Your task to perform on an android device: What is the recent news? Image 0: 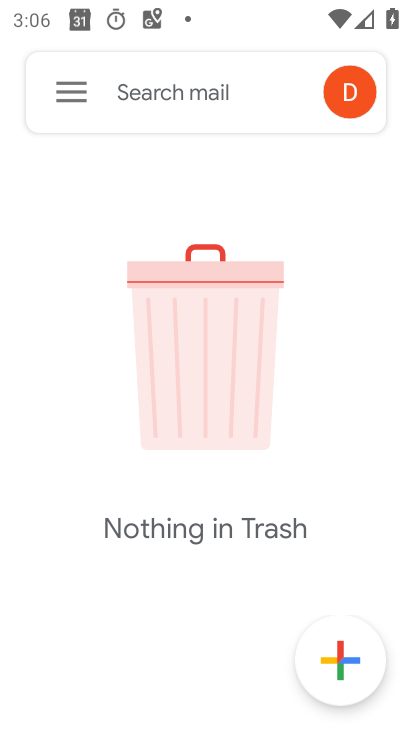
Step 0: press home button
Your task to perform on an android device: What is the recent news? Image 1: 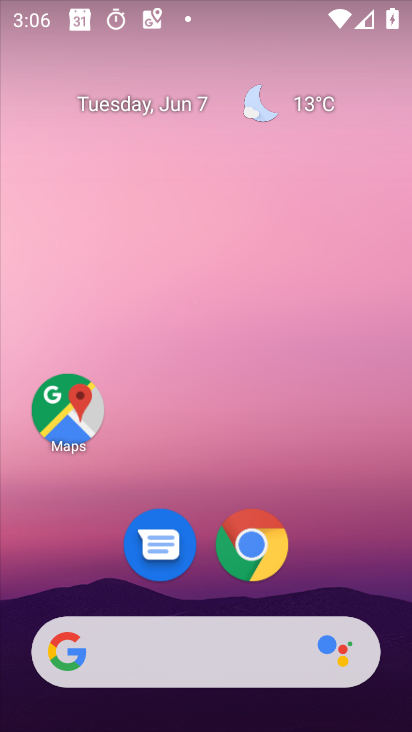
Step 1: drag from (346, 459) to (236, 24)
Your task to perform on an android device: What is the recent news? Image 2: 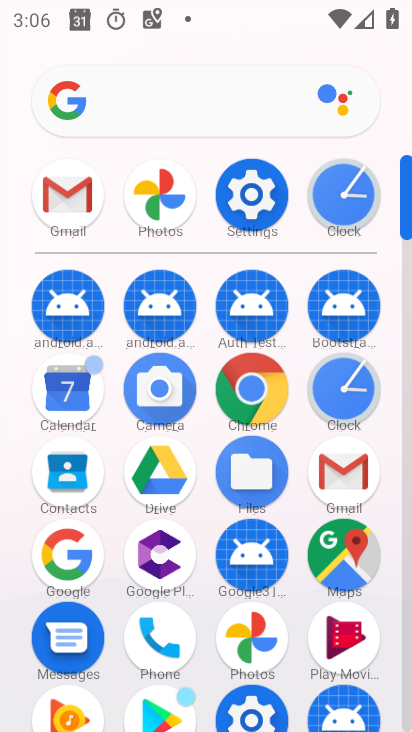
Step 2: click (75, 571)
Your task to perform on an android device: What is the recent news? Image 3: 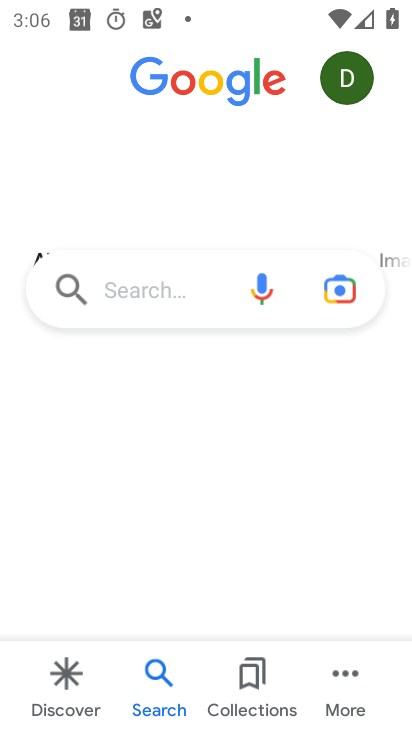
Step 3: click (137, 276)
Your task to perform on an android device: What is the recent news? Image 4: 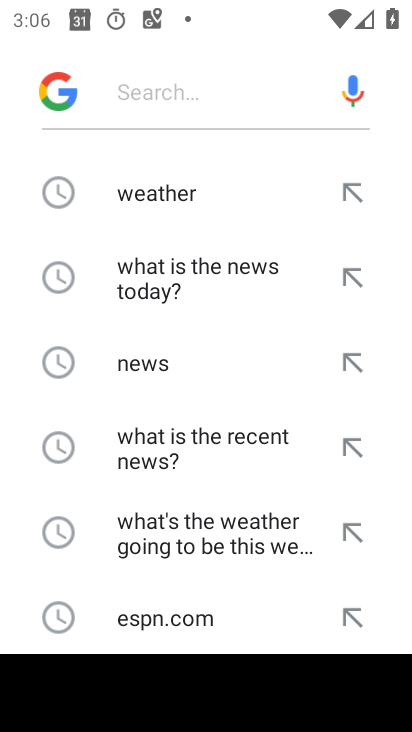
Step 4: click (200, 283)
Your task to perform on an android device: What is the recent news? Image 5: 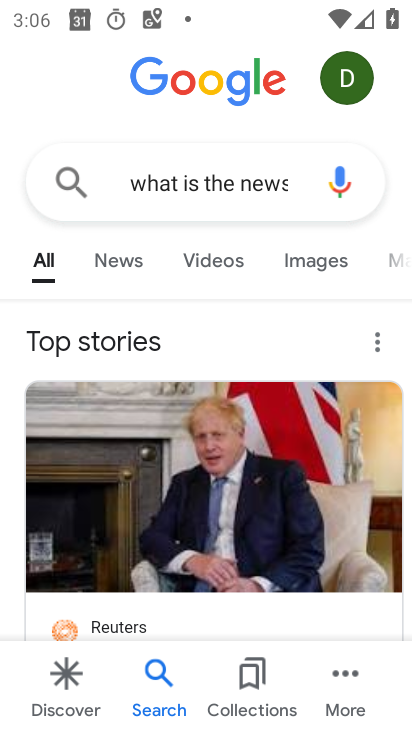
Step 5: click (252, 189)
Your task to perform on an android device: What is the recent news? Image 6: 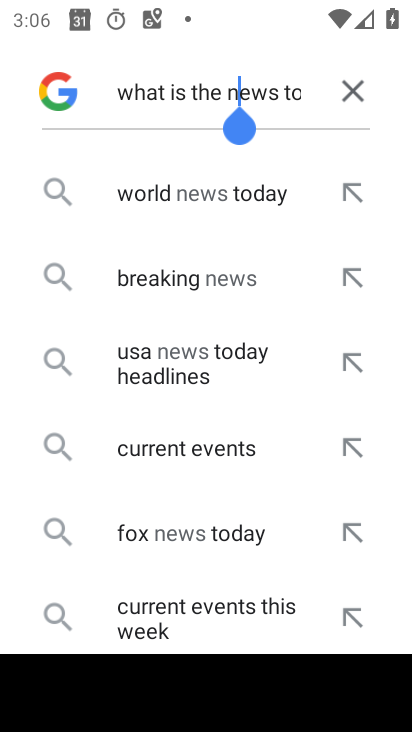
Step 6: click (355, 93)
Your task to perform on an android device: What is the recent news? Image 7: 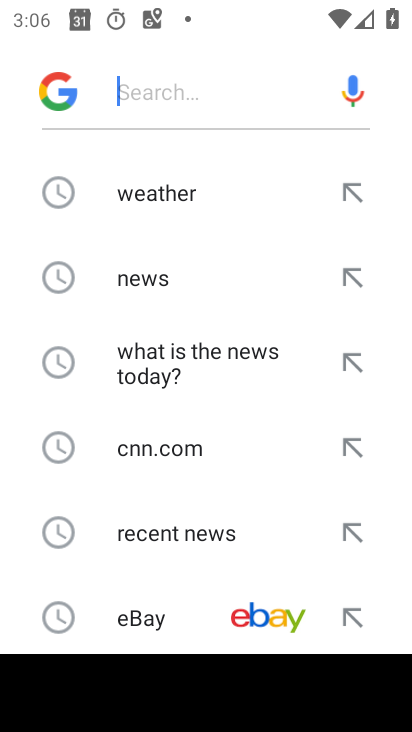
Step 7: click (196, 526)
Your task to perform on an android device: What is the recent news? Image 8: 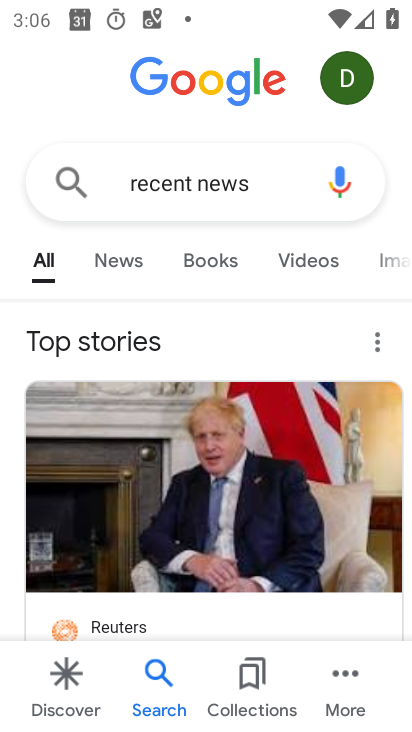
Step 8: task complete